Your task to perform on an android device: Open the Play Movies app and select the watchlist tab. Image 0: 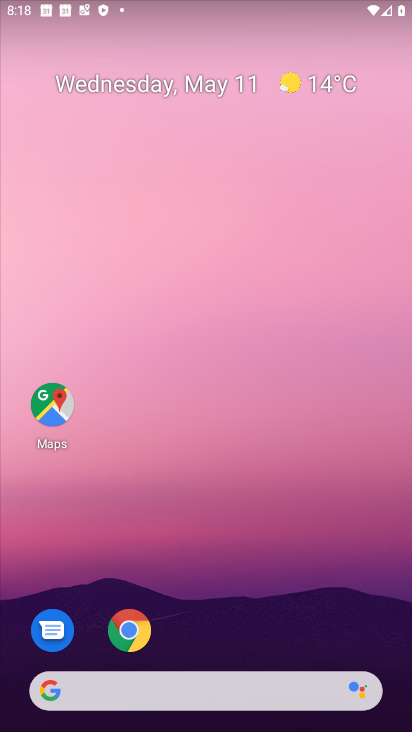
Step 0: drag from (214, 670) to (254, 13)
Your task to perform on an android device: Open the Play Movies app and select the watchlist tab. Image 1: 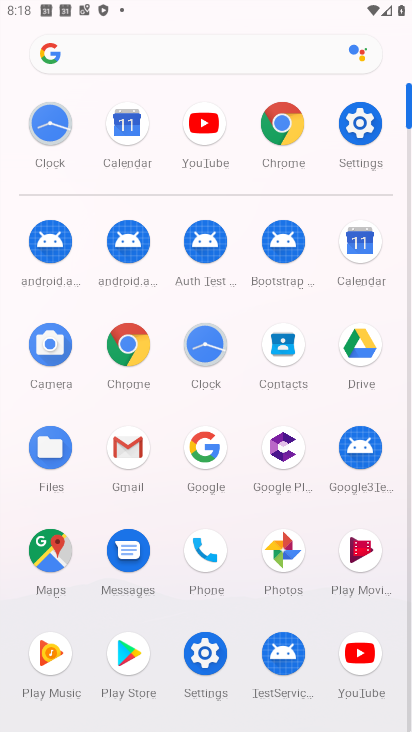
Step 1: click (358, 550)
Your task to perform on an android device: Open the Play Movies app and select the watchlist tab. Image 2: 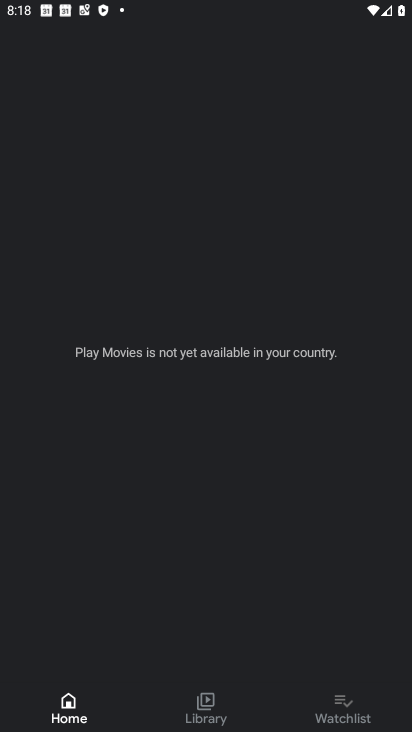
Step 2: click (329, 715)
Your task to perform on an android device: Open the Play Movies app and select the watchlist tab. Image 3: 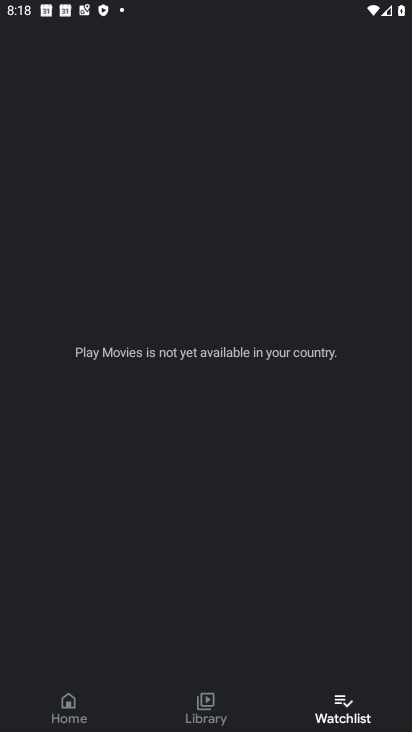
Step 3: task complete